Your task to perform on an android device: Go to Yahoo.com Image 0: 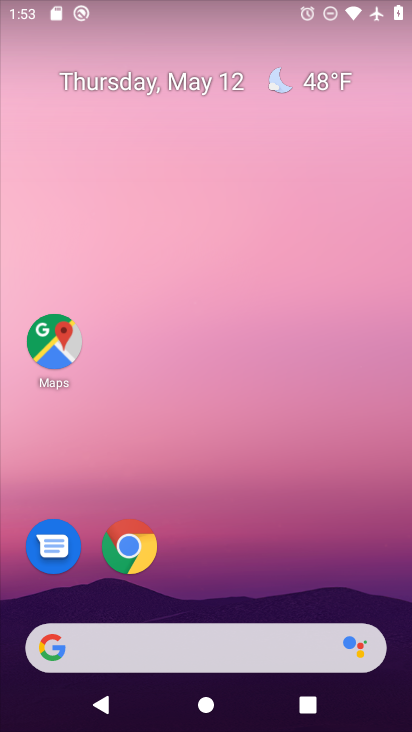
Step 0: click (132, 552)
Your task to perform on an android device: Go to Yahoo.com Image 1: 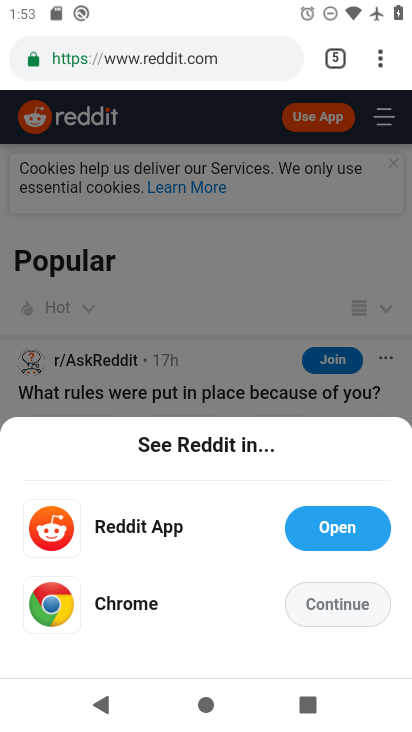
Step 1: drag from (377, 61) to (269, 105)
Your task to perform on an android device: Go to Yahoo.com Image 2: 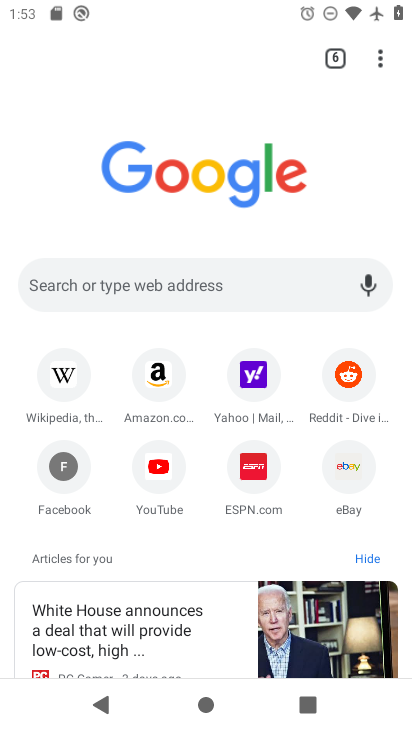
Step 2: click (253, 386)
Your task to perform on an android device: Go to Yahoo.com Image 3: 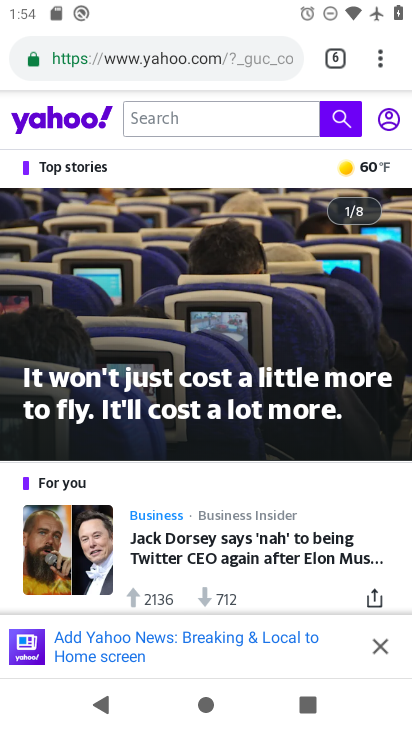
Step 3: task complete